Your task to perform on an android device: open the mobile data screen to see how much data has been used Image 0: 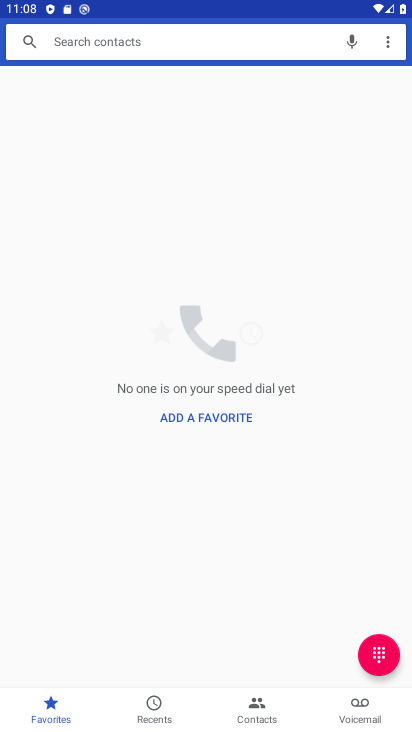
Step 0: press home button
Your task to perform on an android device: open the mobile data screen to see how much data has been used Image 1: 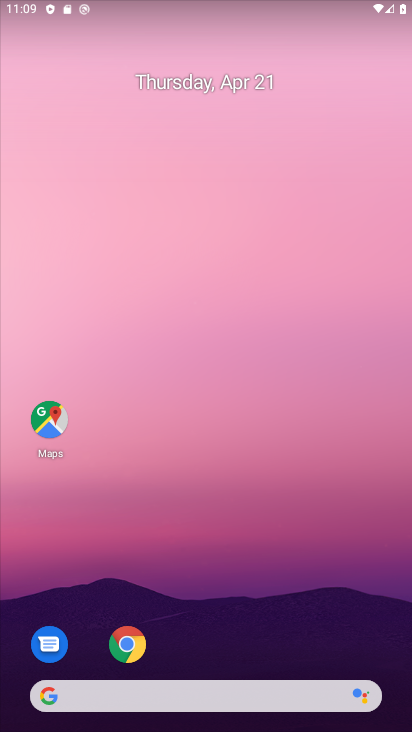
Step 1: drag from (219, 648) to (273, 277)
Your task to perform on an android device: open the mobile data screen to see how much data has been used Image 2: 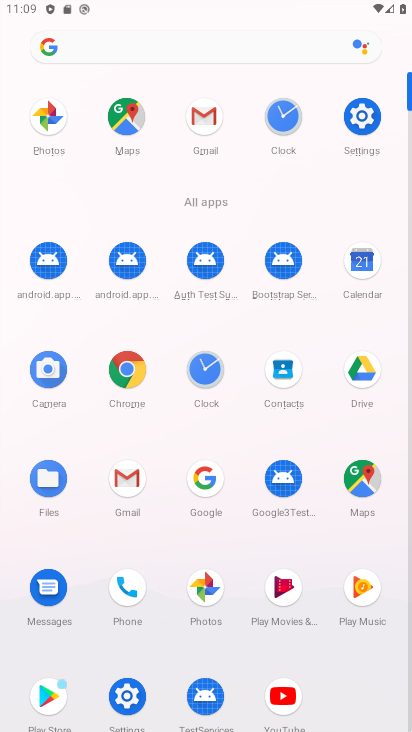
Step 2: click (362, 114)
Your task to perform on an android device: open the mobile data screen to see how much data has been used Image 3: 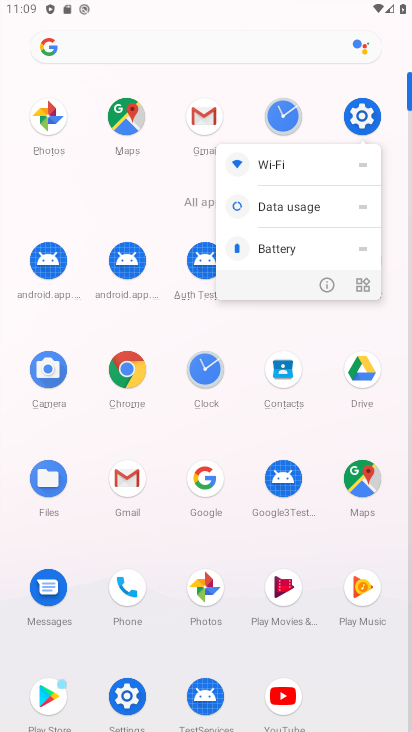
Step 3: click (370, 109)
Your task to perform on an android device: open the mobile data screen to see how much data has been used Image 4: 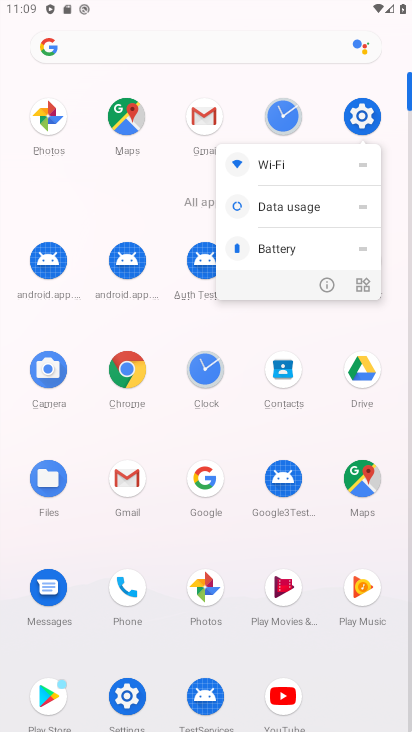
Step 4: drag from (159, 536) to (194, 258)
Your task to perform on an android device: open the mobile data screen to see how much data has been used Image 5: 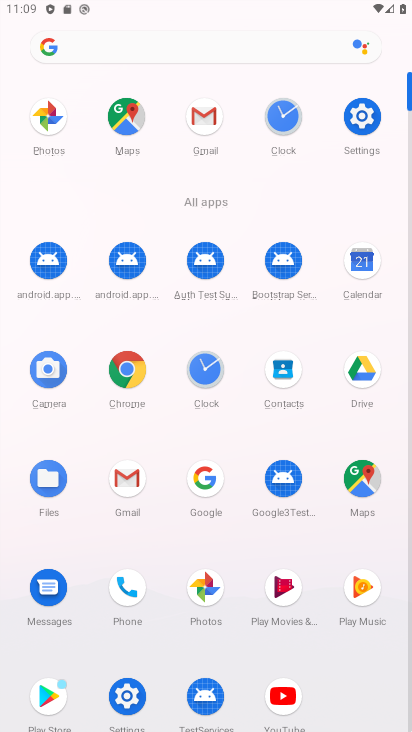
Step 5: click (126, 690)
Your task to perform on an android device: open the mobile data screen to see how much data has been used Image 6: 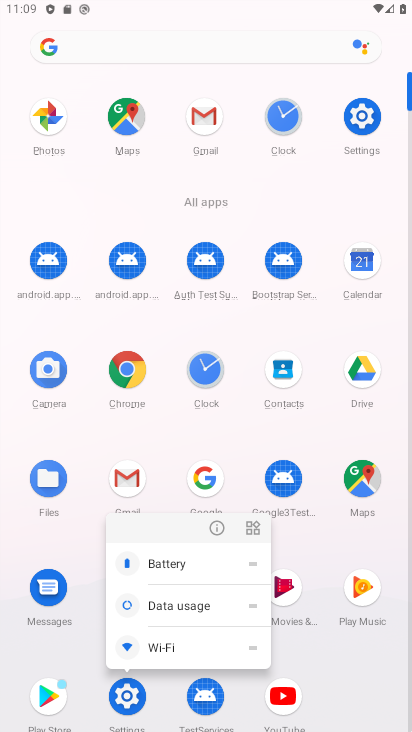
Step 6: click (132, 697)
Your task to perform on an android device: open the mobile data screen to see how much data has been used Image 7: 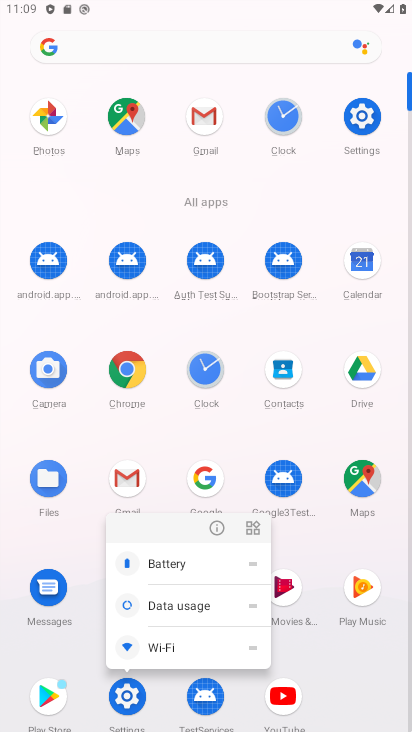
Step 7: click (352, 685)
Your task to perform on an android device: open the mobile data screen to see how much data has been used Image 8: 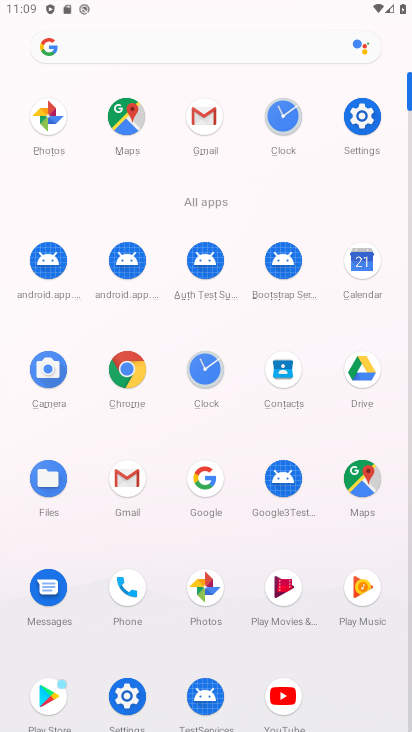
Step 8: drag from (352, 685) to (312, 210)
Your task to perform on an android device: open the mobile data screen to see how much data has been used Image 9: 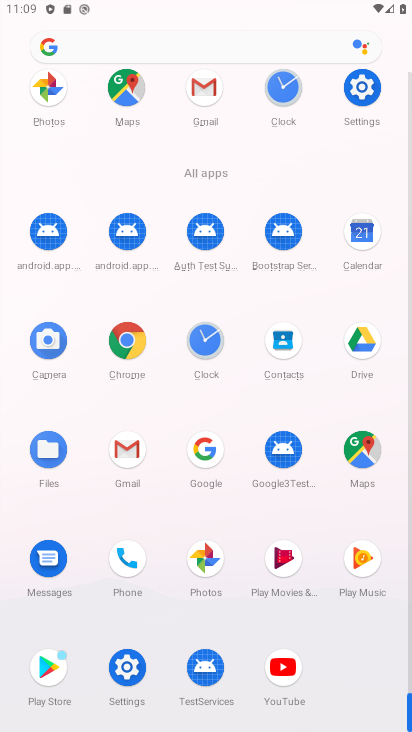
Step 9: click (129, 666)
Your task to perform on an android device: open the mobile data screen to see how much data has been used Image 10: 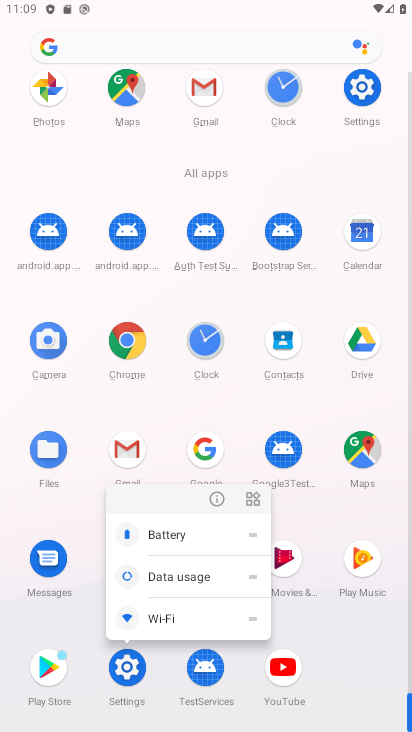
Step 10: click (123, 673)
Your task to perform on an android device: open the mobile data screen to see how much data has been used Image 11: 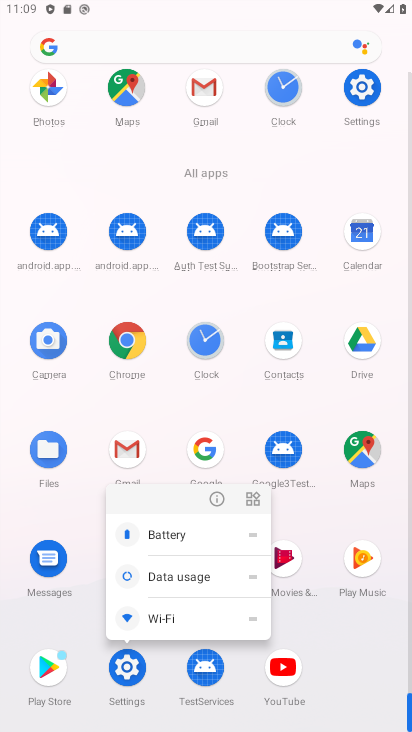
Step 11: click (129, 673)
Your task to perform on an android device: open the mobile data screen to see how much data has been used Image 12: 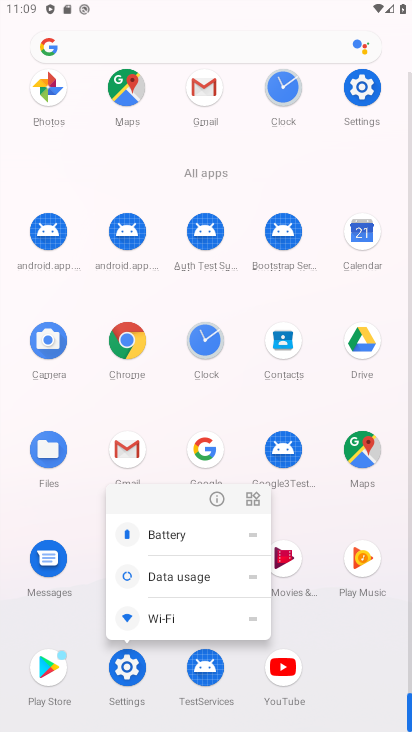
Step 12: click (364, 89)
Your task to perform on an android device: open the mobile data screen to see how much data has been used Image 13: 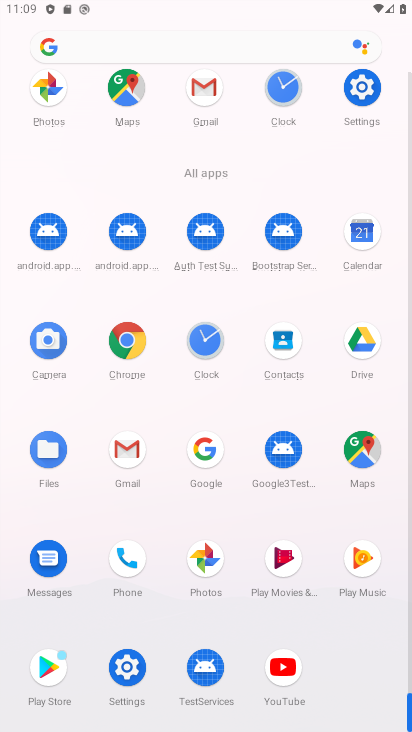
Step 13: click (132, 657)
Your task to perform on an android device: open the mobile data screen to see how much data has been used Image 14: 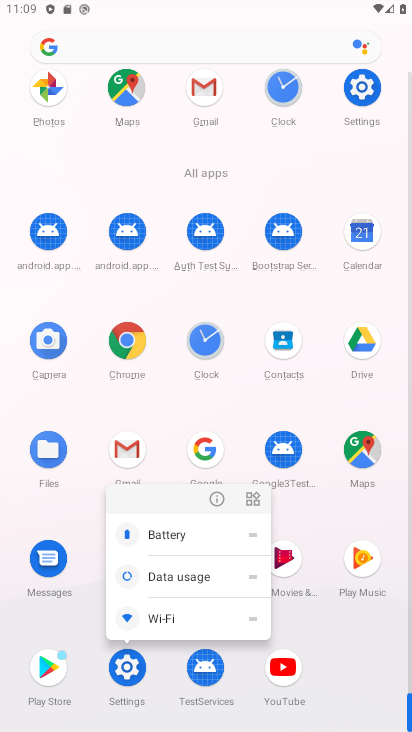
Step 14: click (359, 93)
Your task to perform on an android device: open the mobile data screen to see how much data has been used Image 15: 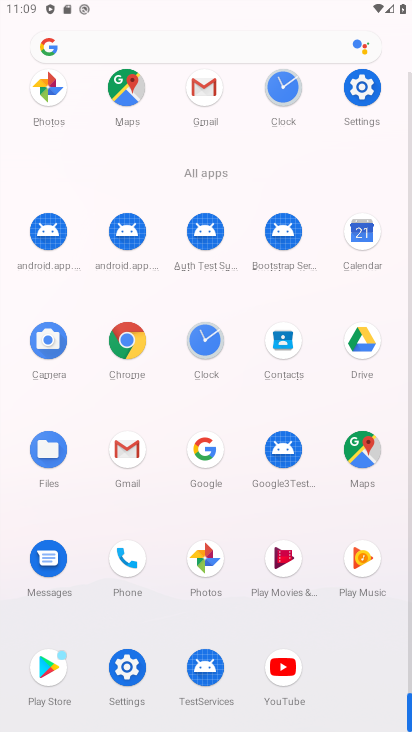
Step 15: click (359, 89)
Your task to perform on an android device: open the mobile data screen to see how much data has been used Image 16: 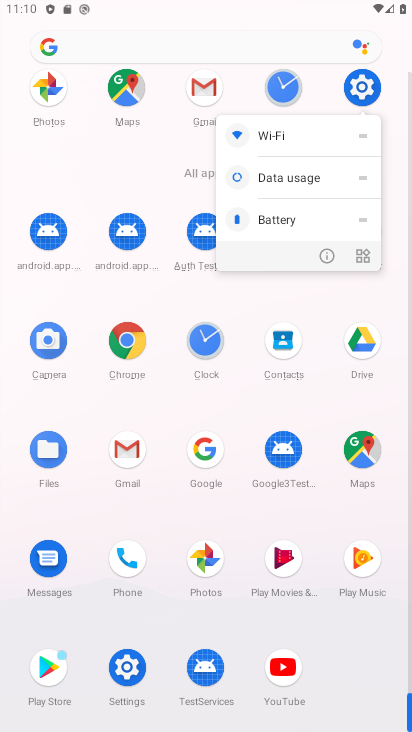
Step 16: click (127, 671)
Your task to perform on an android device: open the mobile data screen to see how much data has been used Image 17: 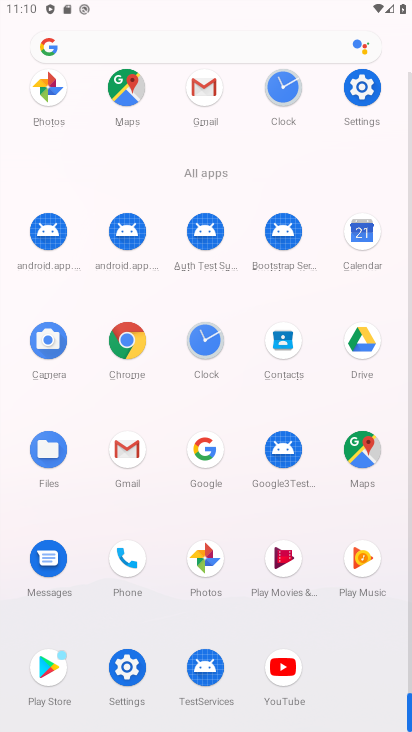
Step 17: drag from (202, 662) to (95, 607)
Your task to perform on an android device: open the mobile data screen to see how much data has been used Image 18: 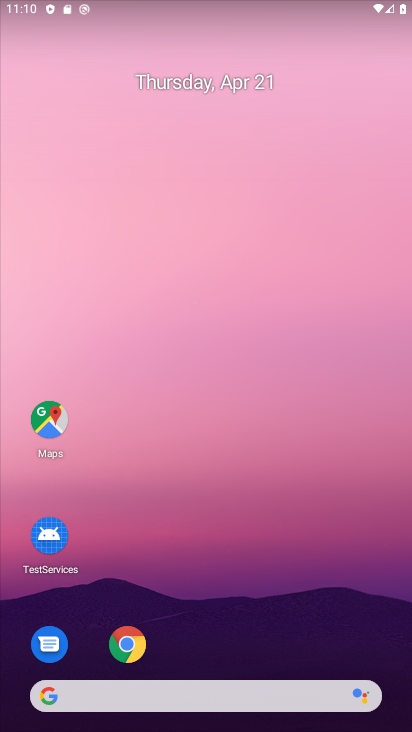
Step 18: drag from (254, 609) to (256, 6)
Your task to perform on an android device: open the mobile data screen to see how much data has been used Image 19: 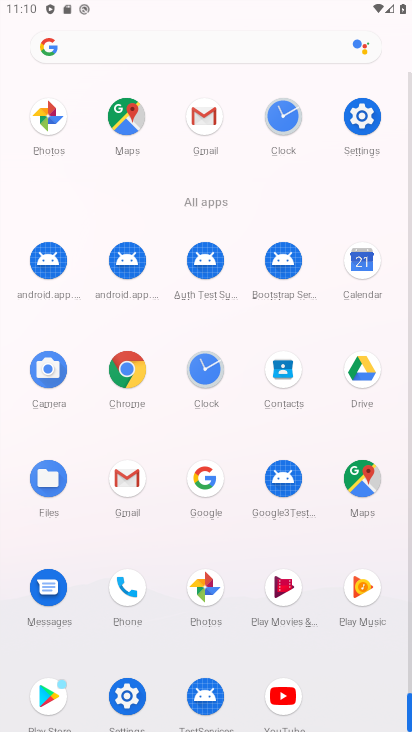
Step 19: click (131, 690)
Your task to perform on an android device: open the mobile data screen to see how much data has been used Image 20: 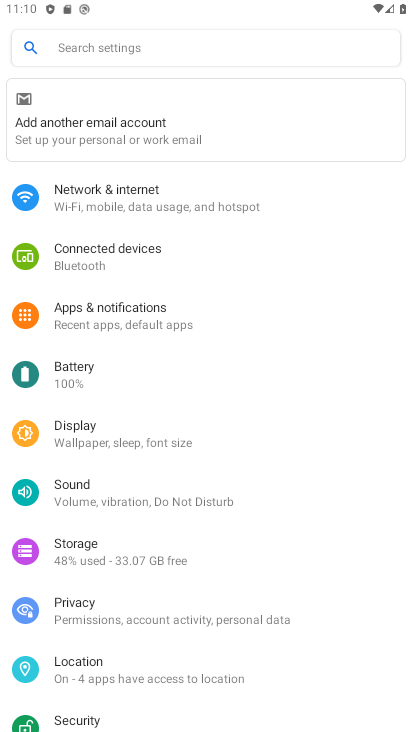
Step 20: click (102, 191)
Your task to perform on an android device: open the mobile data screen to see how much data has been used Image 21: 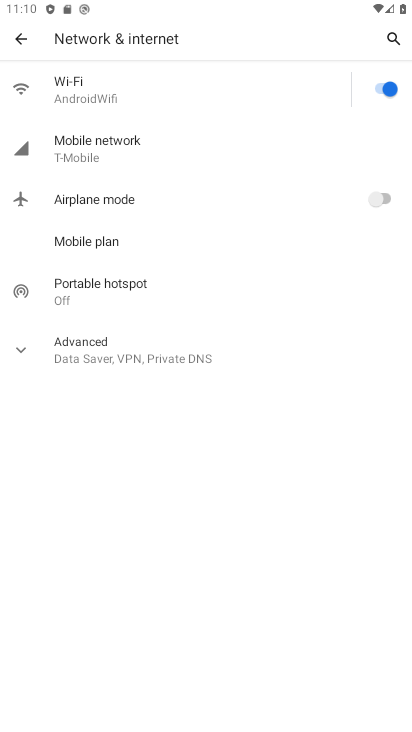
Step 21: click (123, 144)
Your task to perform on an android device: open the mobile data screen to see how much data has been used Image 22: 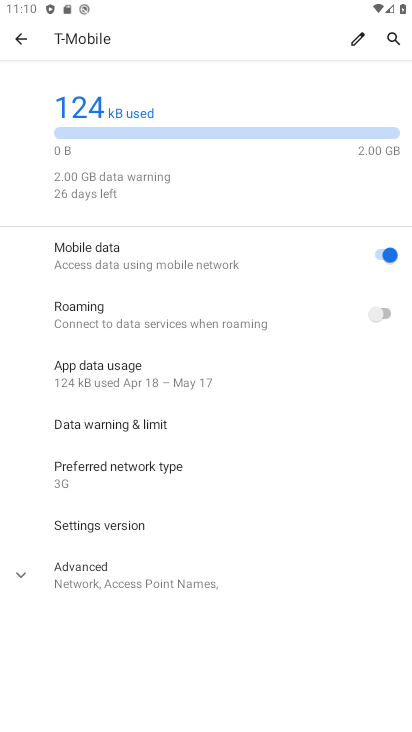
Step 22: task complete